Your task to perform on an android device: change notifications settings Image 0: 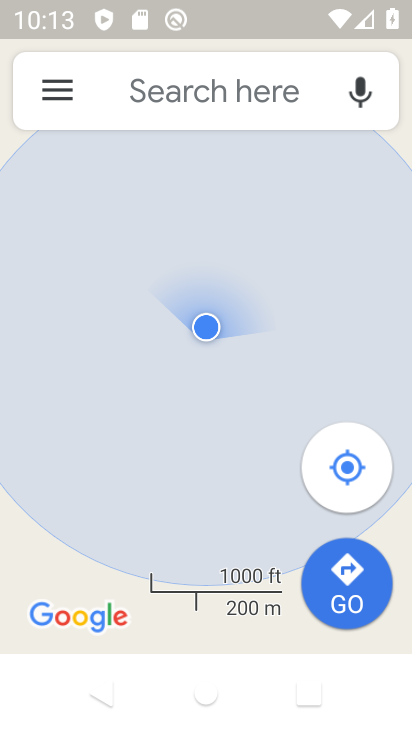
Step 0: press home button
Your task to perform on an android device: change notifications settings Image 1: 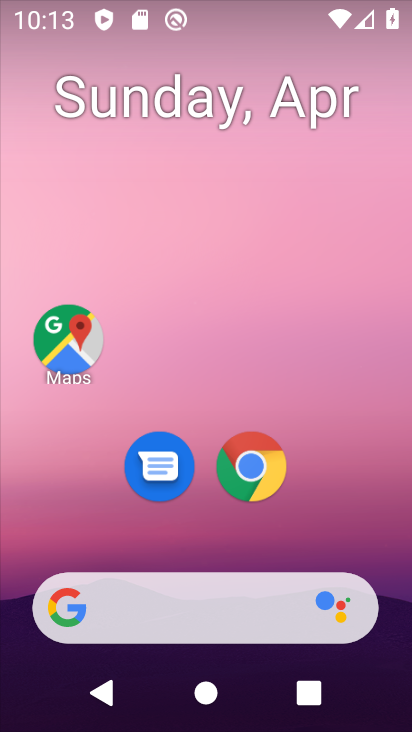
Step 1: drag from (366, 503) to (351, 86)
Your task to perform on an android device: change notifications settings Image 2: 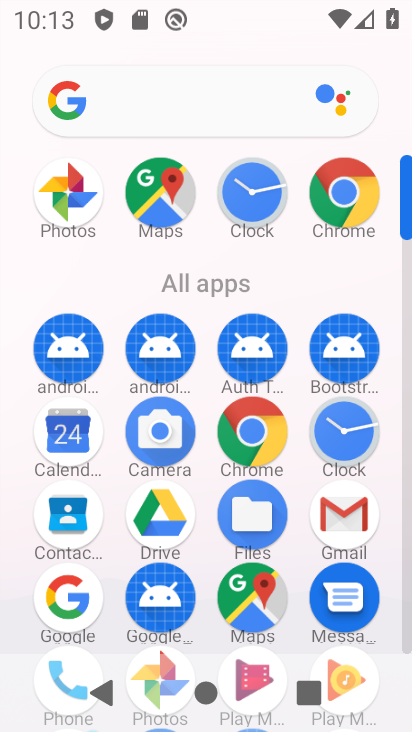
Step 2: drag from (390, 541) to (399, 355)
Your task to perform on an android device: change notifications settings Image 3: 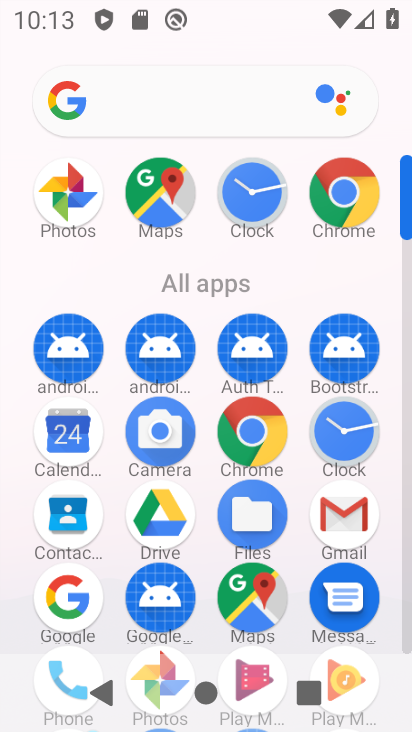
Step 3: drag from (206, 552) to (194, 223)
Your task to perform on an android device: change notifications settings Image 4: 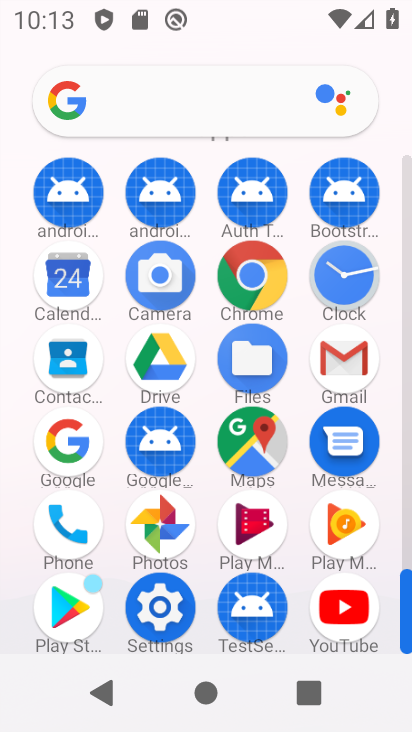
Step 4: click (161, 607)
Your task to perform on an android device: change notifications settings Image 5: 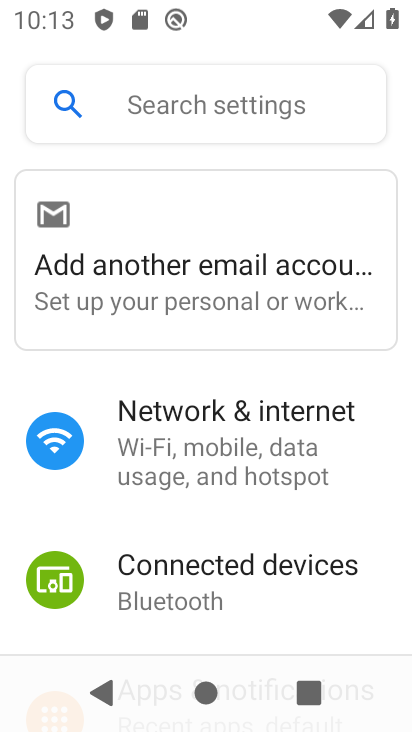
Step 5: drag from (307, 599) to (337, 430)
Your task to perform on an android device: change notifications settings Image 6: 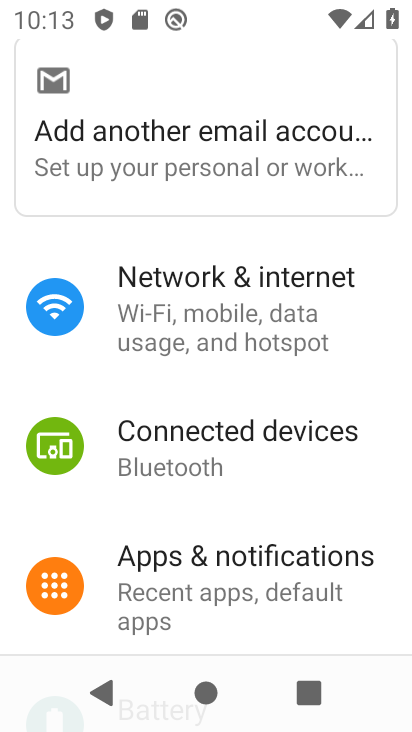
Step 6: drag from (375, 611) to (372, 446)
Your task to perform on an android device: change notifications settings Image 7: 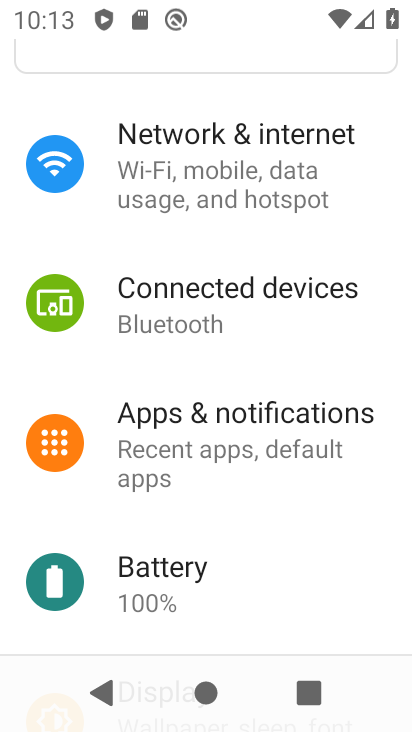
Step 7: click (272, 444)
Your task to perform on an android device: change notifications settings Image 8: 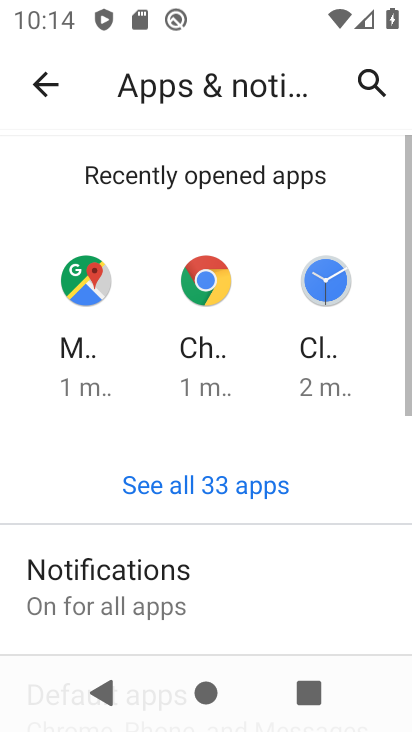
Step 8: click (163, 579)
Your task to perform on an android device: change notifications settings Image 9: 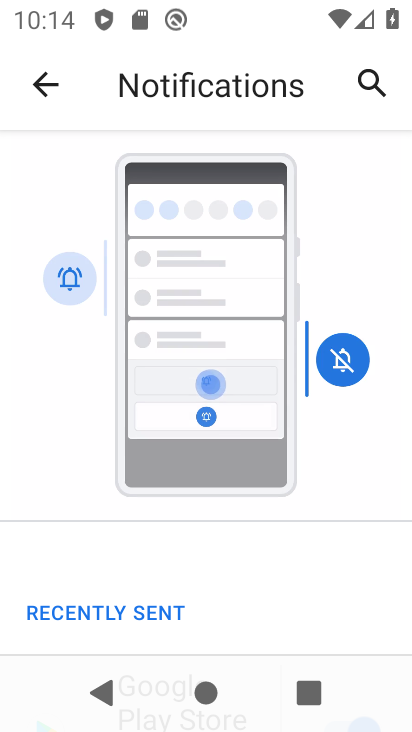
Step 9: drag from (266, 580) to (288, 325)
Your task to perform on an android device: change notifications settings Image 10: 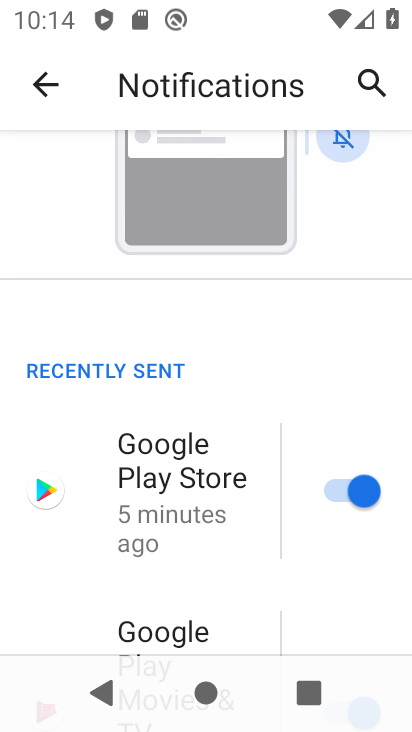
Step 10: drag from (235, 580) to (237, 347)
Your task to perform on an android device: change notifications settings Image 11: 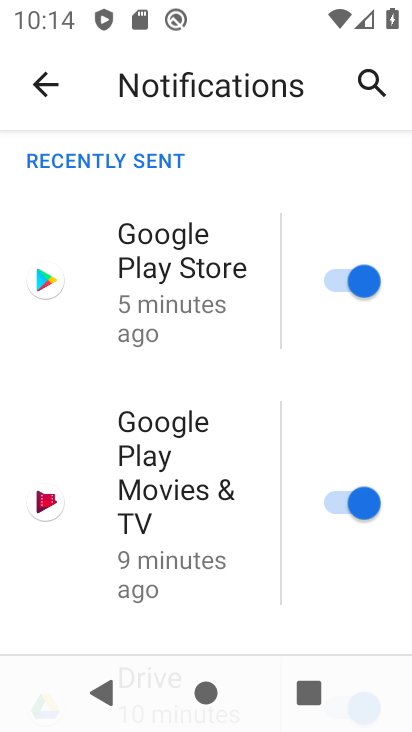
Step 11: click (346, 285)
Your task to perform on an android device: change notifications settings Image 12: 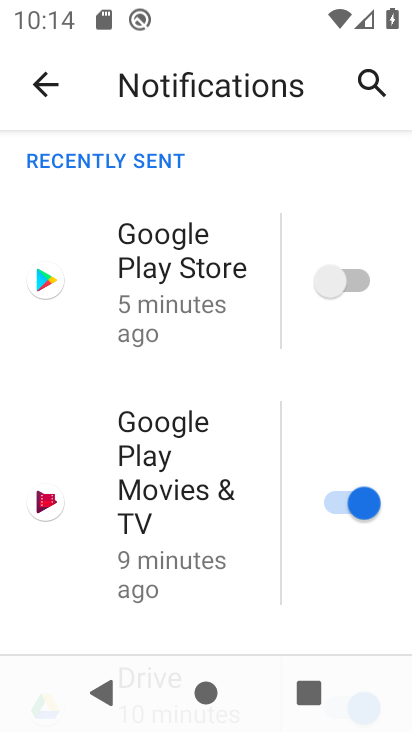
Step 12: click (358, 498)
Your task to perform on an android device: change notifications settings Image 13: 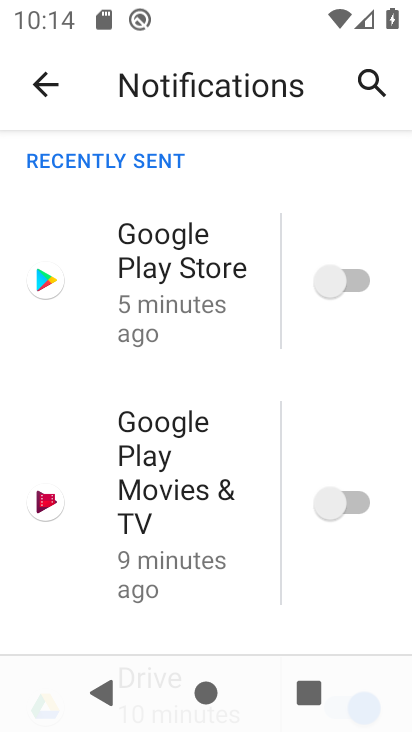
Step 13: task complete